Your task to perform on an android device: find photos in the google photos app Image 0: 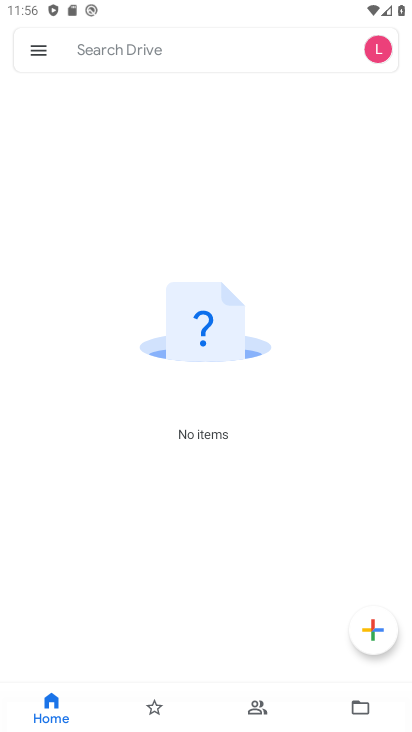
Step 0: press home button
Your task to perform on an android device: find photos in the google photos app Image 1: 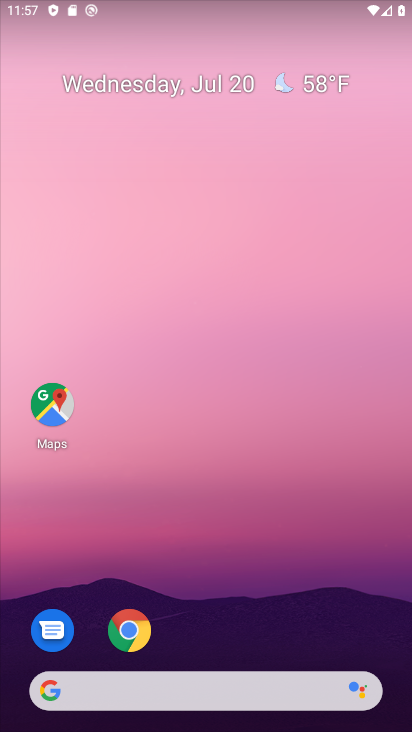
Step 1: drag from (240, 686) to (264, 190)
Your task to perform on an android device: find photos in the google photos app Image 2: 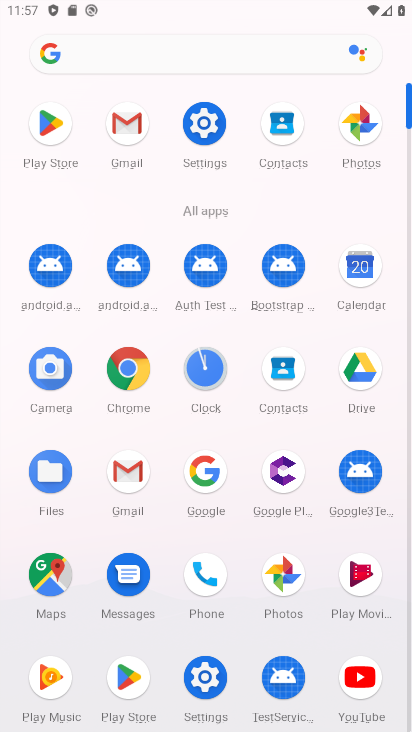
Step 2: click (271, 570)
Your task to perform on an android device: find photos in the google photos app Image 3: 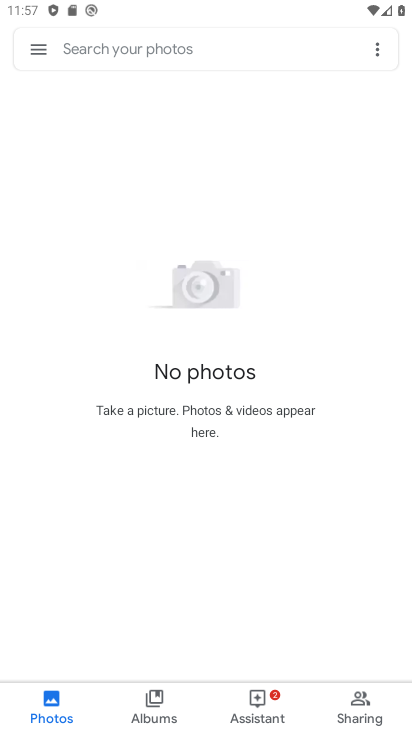
Step 3: task complete